Your task to perform on an android device: turn off improve location accuracy Image 0: 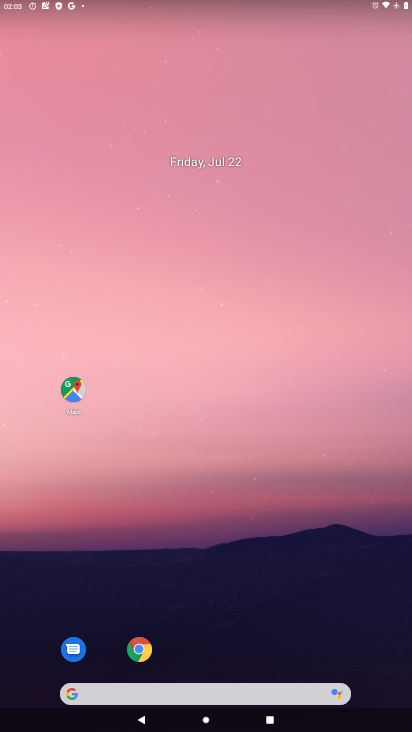
Step 0: drag from (310, 603) to (292, 93)
Your task to perform on an android device: turn off improve location accuracy Image 1: 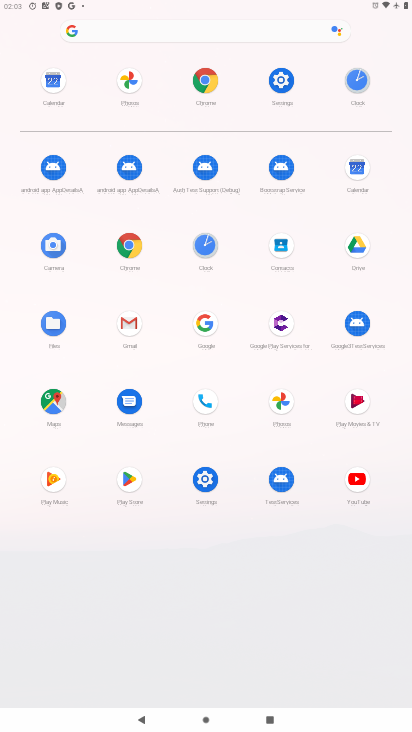
Step 1: click (277, 83)
Your task to perform on an android device: turn off improve location accuracy Image 2: 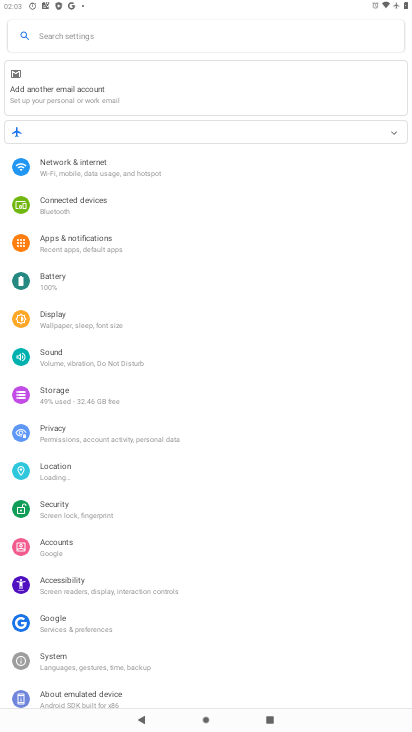
Step 2: click (62, 464)
Your task to perform on an android device: turn off improve location accuracy Image 3: 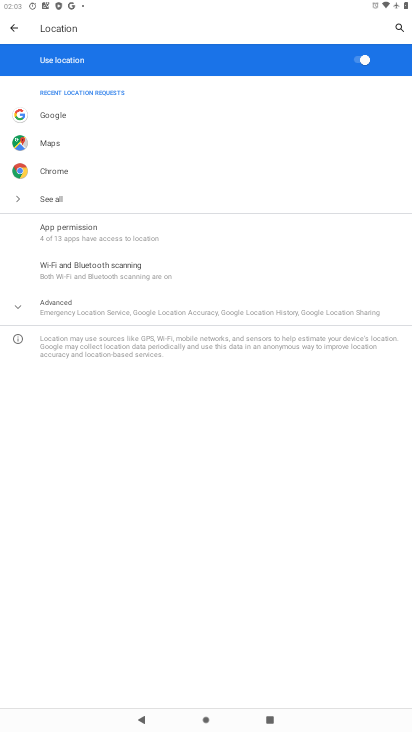
Step 3: click (102, 309)
Your task to perform on an android device: turn off improve location accuracy Image 4: 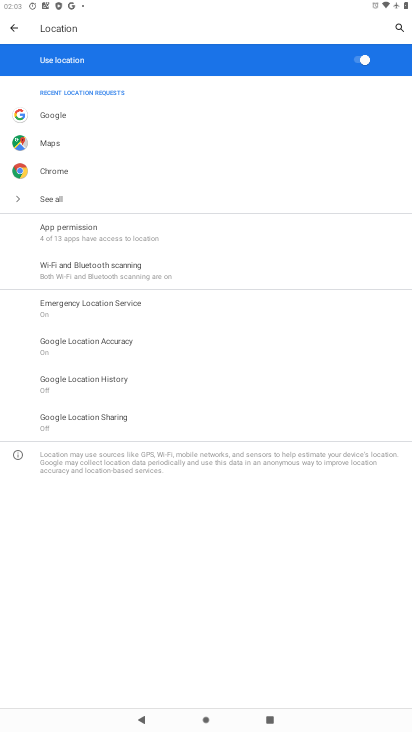
Step 4: click (106, 344)
Your task to perform on an android device: turn off improve location accuracy Image 5: 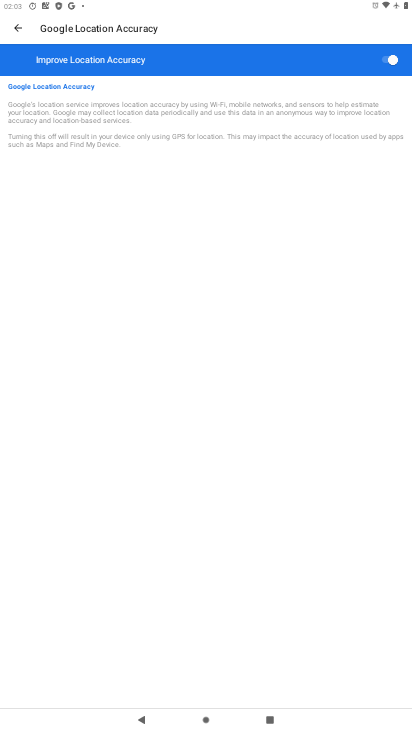
Step 5: click (361, 62)
Your task to perform on an android device: turn off improve location accuracy Image 6: 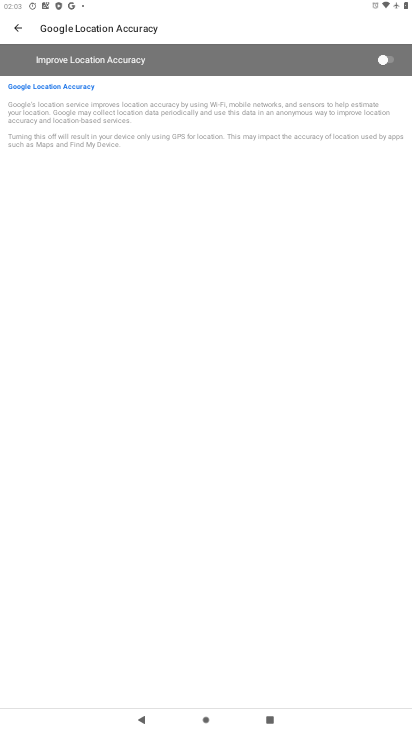
Step 6: task complete